Your task to perform on an android device: Do I have any events this weekend? Image 0: 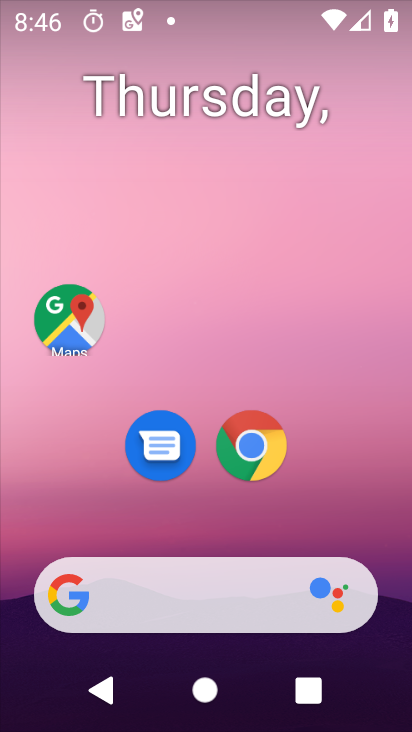
Step 0: drag from (67, 538) to (223, 265)
Your task to perform on an android device: Do I have any events this weekend? Image 1: 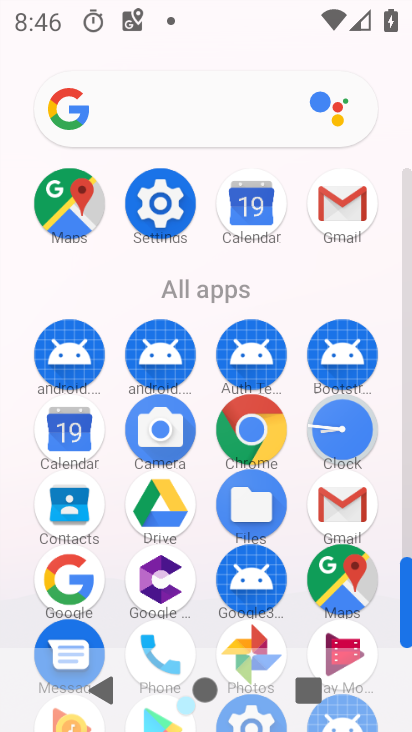
Step 1: click (55, 439)
Your task to perform on an android device: Do I have any events this weekend? Image 2: 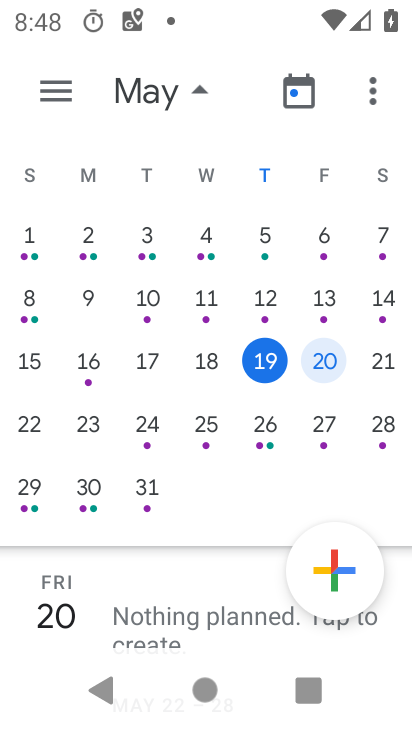
Step 2: click (367, 363)
Your task to perform on an android device: Do I have any events this weekend? Image 3: 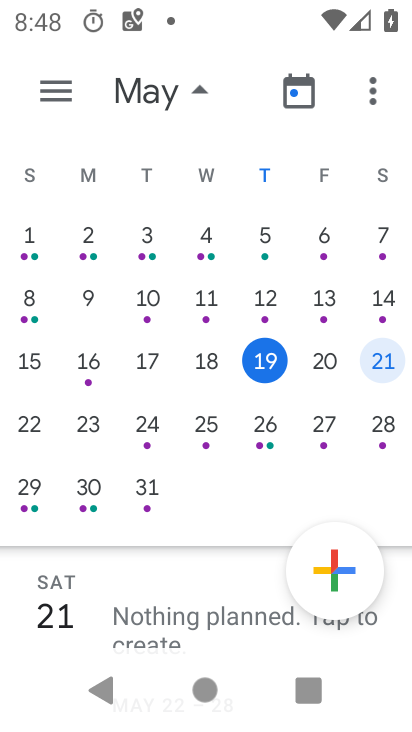
Step 3: click (23, 418)
Your task to perform on an android device: Do I have any events this weekend? Image 4: 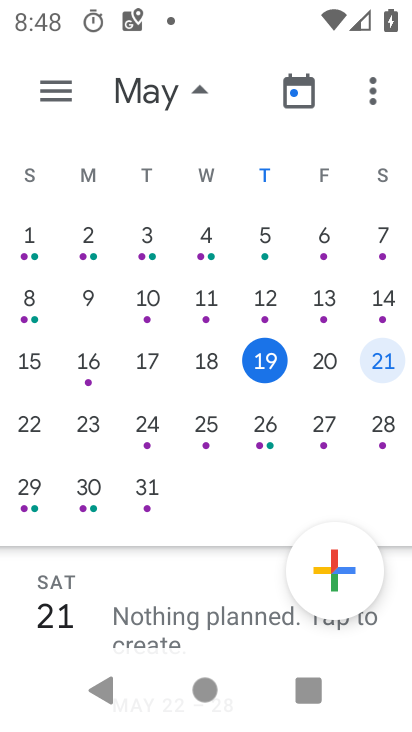
Step 4: task complete